Your task to perform on an android device: allow cookies in the chrome app Image 0: 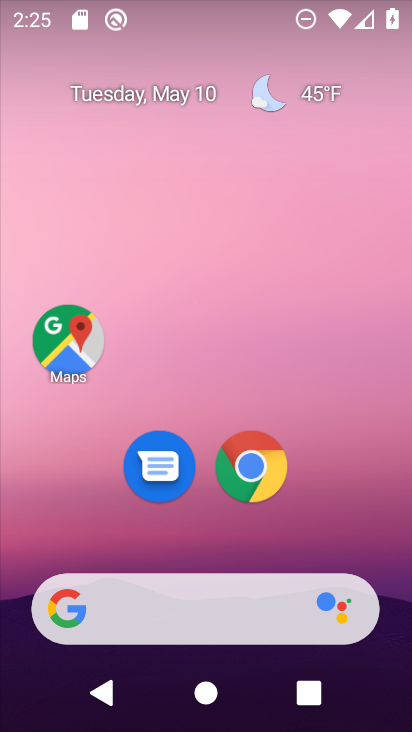
Step 0: click (236, 473)
Your task to perform on an android device: allow cookies in the chrome app Image 1: 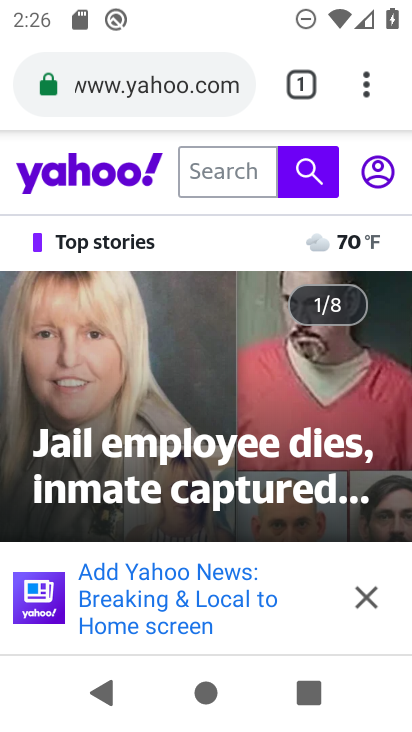
Step 1: click (365, 92)
Your task to perform on an android device: allow cookies in the chrome app Image 2: 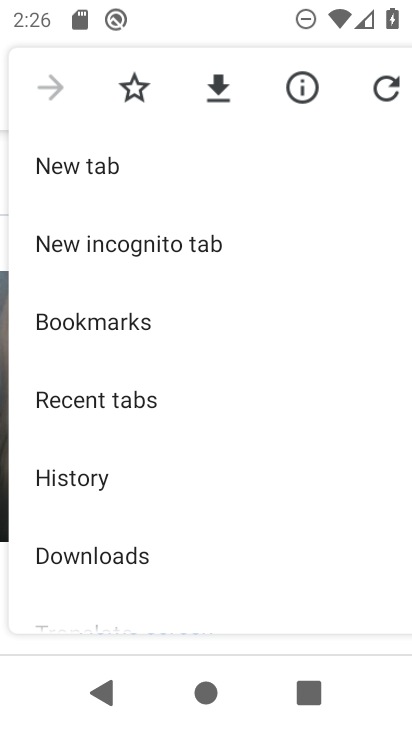
Step 2: drag from (127, 580) to (150, 232)
Your task to perform on an android device: allow cookies in the chrome app Image 3: 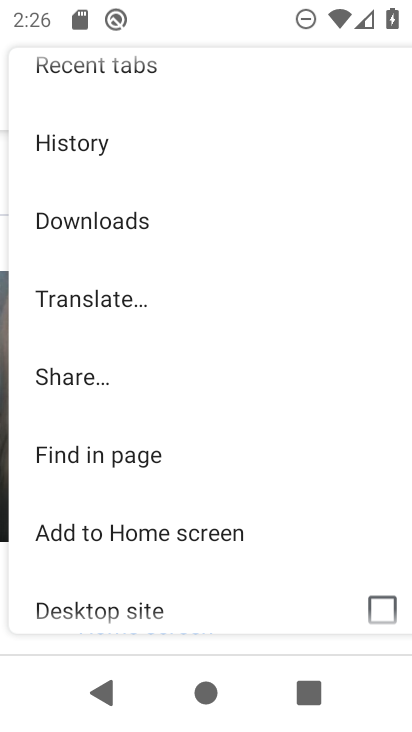
Step 3: drag from (175, 576) to (171, 383)
Your task to perform on an android device: allow cookies in the chrome app Image 4: 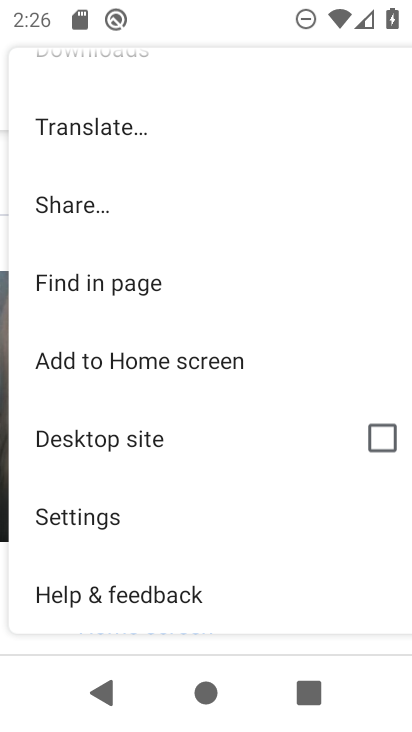
Step 4: click (171, 506)
Your task to perform on an android device: allow cookies in the chrome app Image 5: 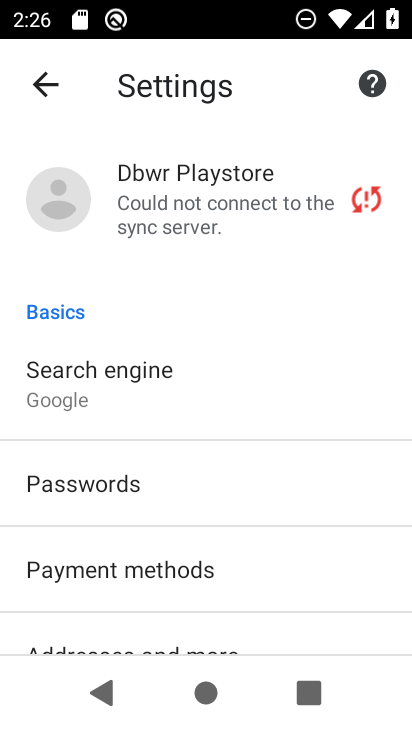
Step 5: drag from (198, 593) to (243, 302)
Your task to perform on an android device: allow cookies in the chrome app Image 6: 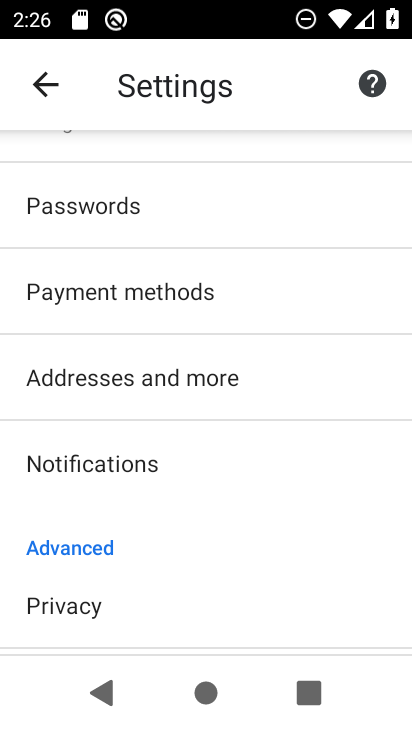
Step 6: click (211, 418)
Your task to perform on an android device: allow cookies in the chrome app Image 7: 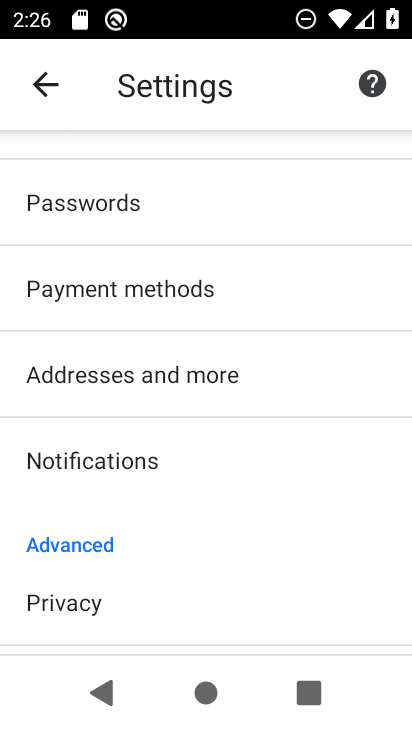
Step 7: drag from (217, 576) to (218, 396)
Your task to perform on an android device: allow cookies in the chrome app Image 8: 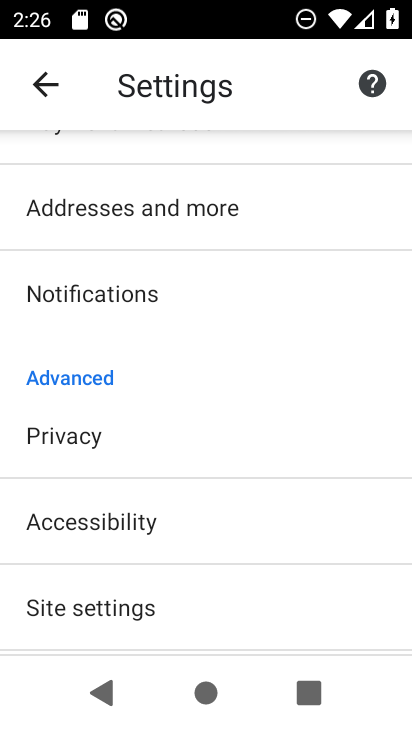
Step 8: click (191, 606)
Your task to perform on an android device: allow cookies in the chrome app Image 9: 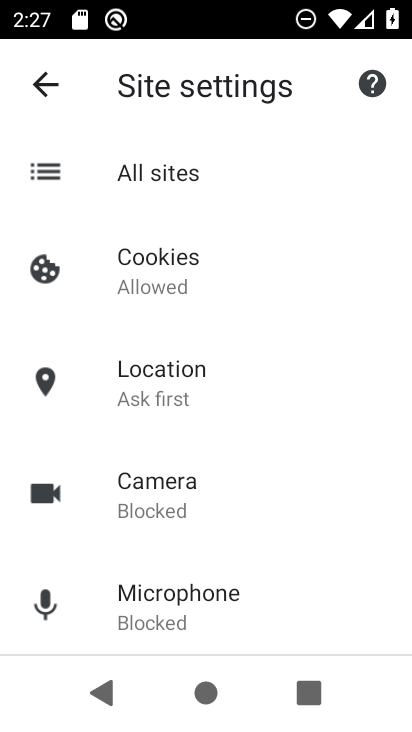
Step 9: click (205, 278)
Your task to perform on an android device: allow cookies in the chrome app Image 10: 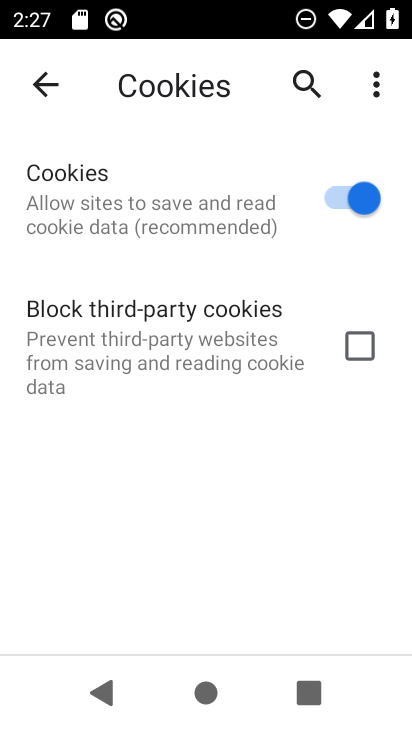
Step 10: task complete